Your task to perform on an android device: Find coffee shops on Maps Image 0: 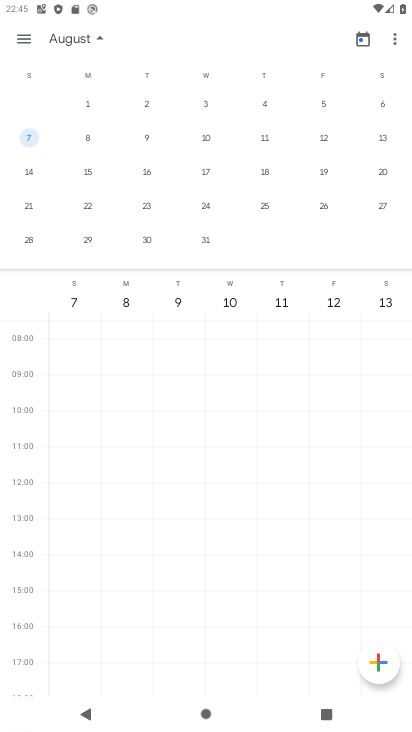
Step 0: press home button
Your task to perform on an android device: Find coffee shops on Maps Image 1: 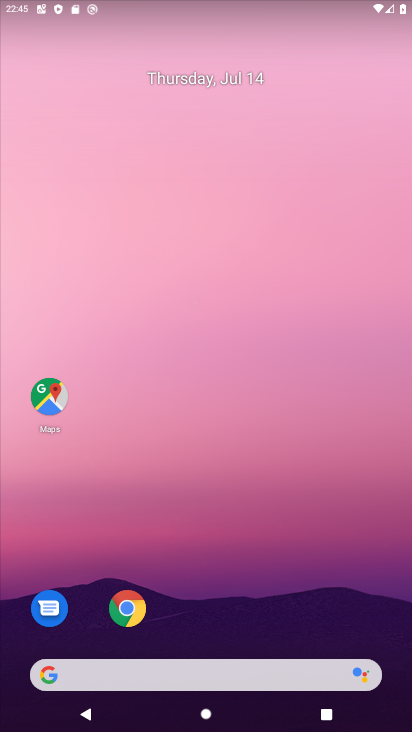
Step 1: click (40, 384)
Your task to perform on an android device: Find coffee shops on Maps Image 2: 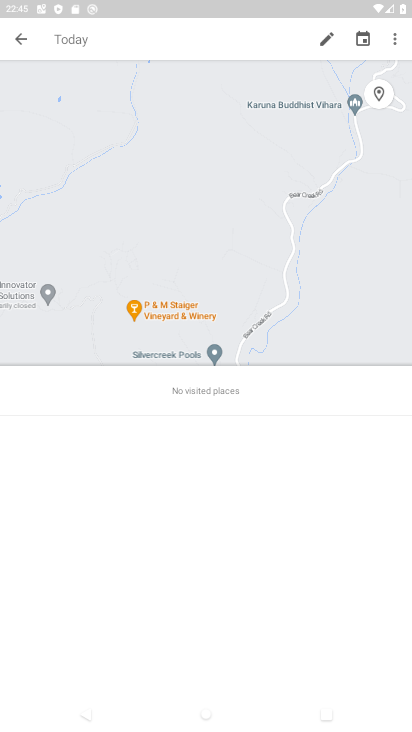
Step 2: click (18, 41)
Your task to perform on an android device: Find coffee shops on Maps Image 3: 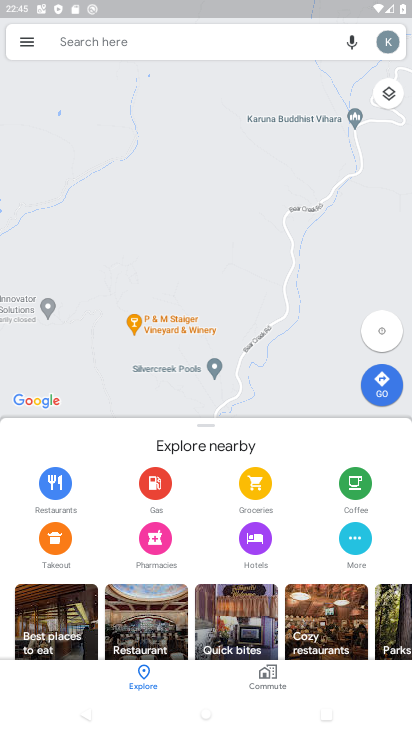
Step 3: click (105, 44)
Your task to perform on an android device: Find coffee shops on Maps Image 4: 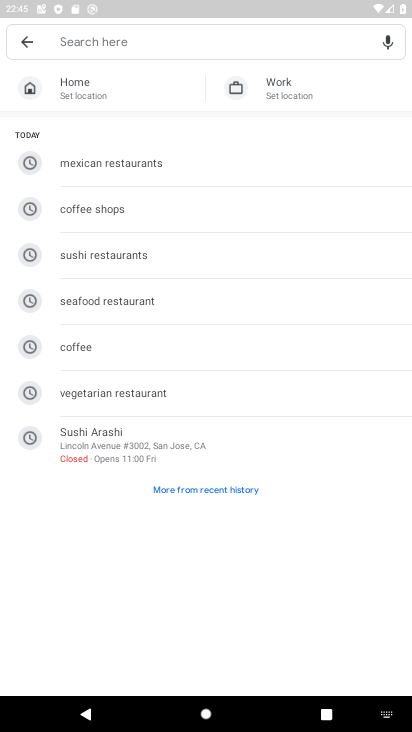
Step 4: click (101, 202)
Your task to perform on an android device: Find coffee shops on Maps Image 5: 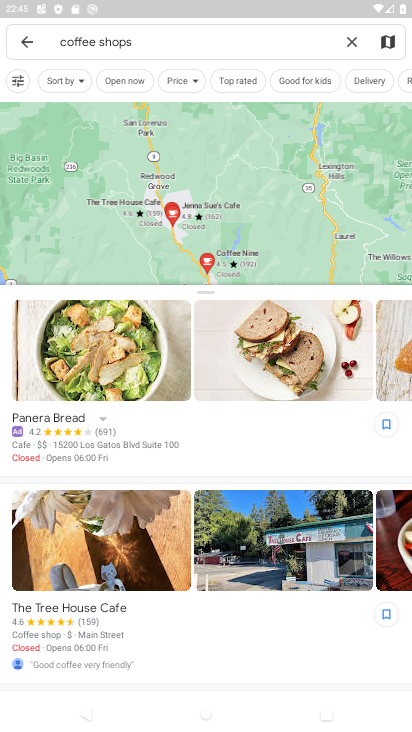
Step 5: task complete